Your task to perform on an android device: Clear the shopping cart on newegg. Add "macbook pro" to the cart on newegg, then select checkout. Image 0: 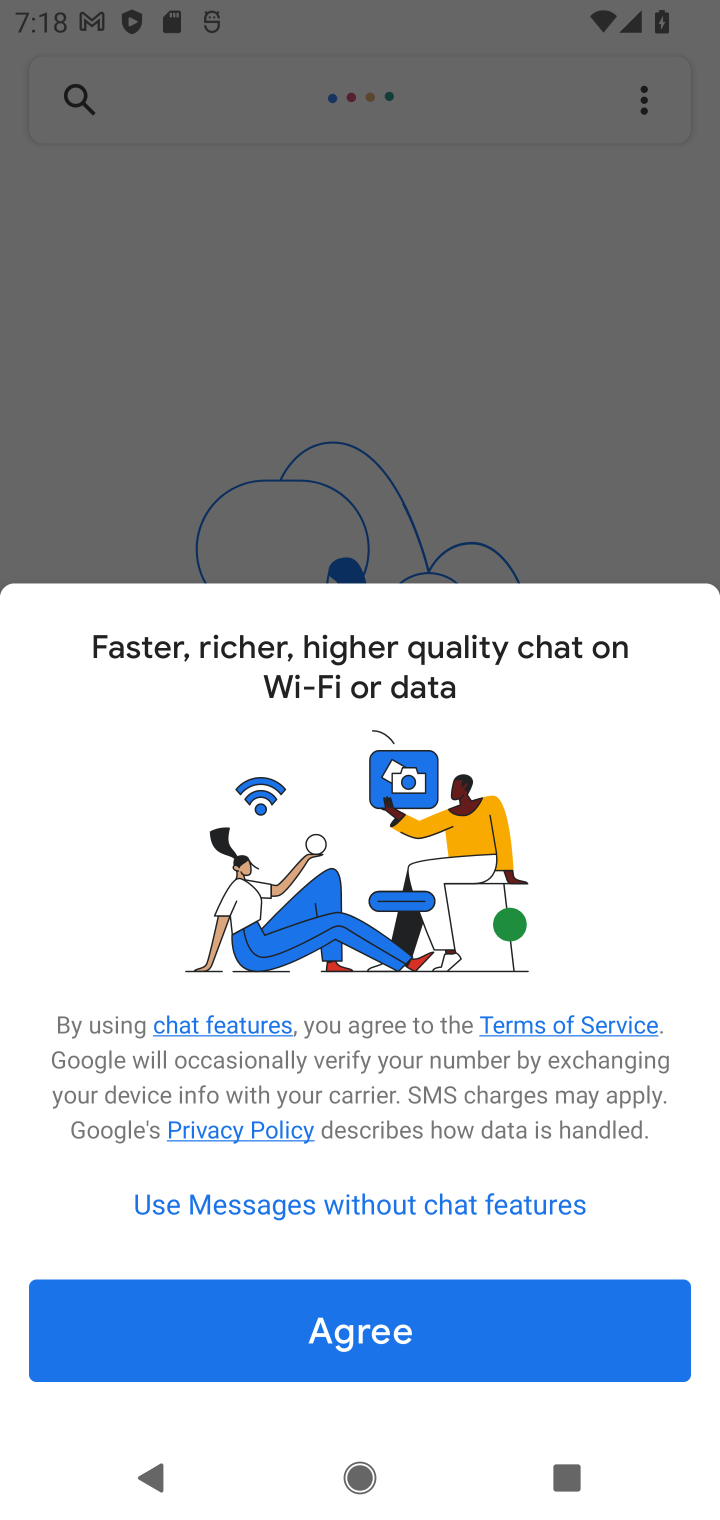
Step 0: press home button
Your task to perform on an android device: Clear the shopping cart on newegg. Add "macbook pro" to the cart on newegg, then select checkout. Image 1: 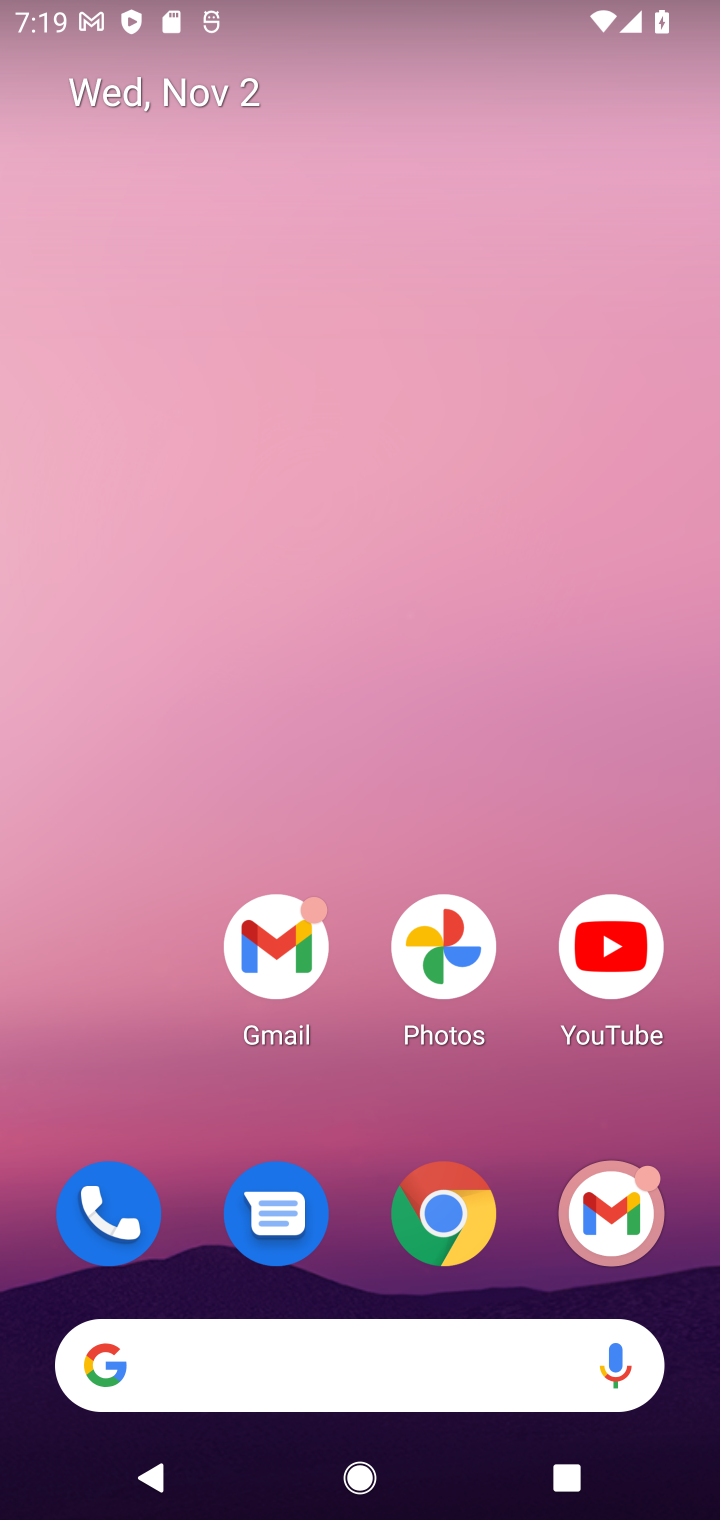
Step 1: click (438, 1213)
Your task to perform on an android device: Clear the shopping cart on newegg. Add "macbook pro" to the cart on newegg, then select checkout. Image 2: 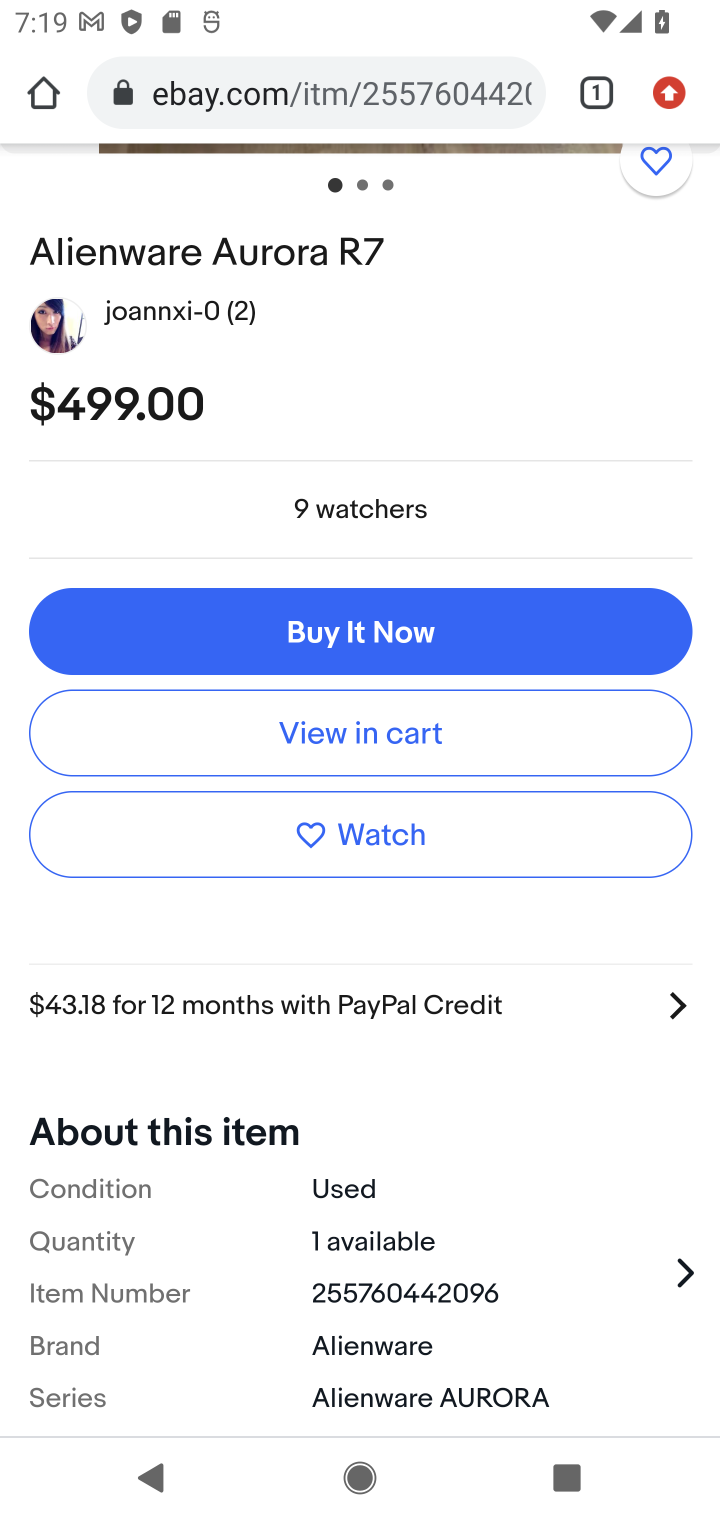
Step 2: click (340, 61)
Your task to perform on an android device: Clear the shopping cart on newegg. Add "macbook pro" to the cart on newegg, then select checkout. Image 3: 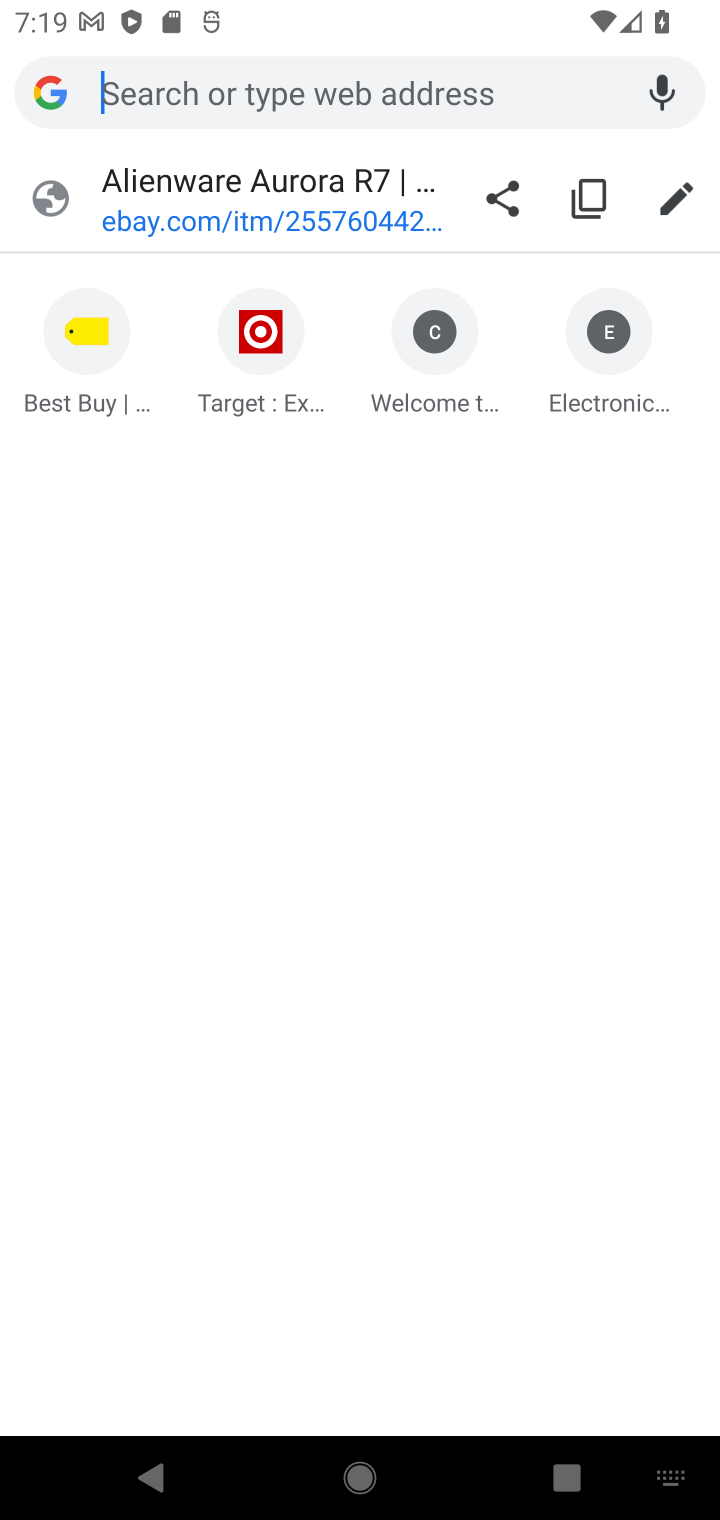
Step 3: type "newegg"
Your task to perform on an android device: Clear the shopping cart on newegg. Add "macbook pro" to the cart on newegg, then select checkout. Image 4: 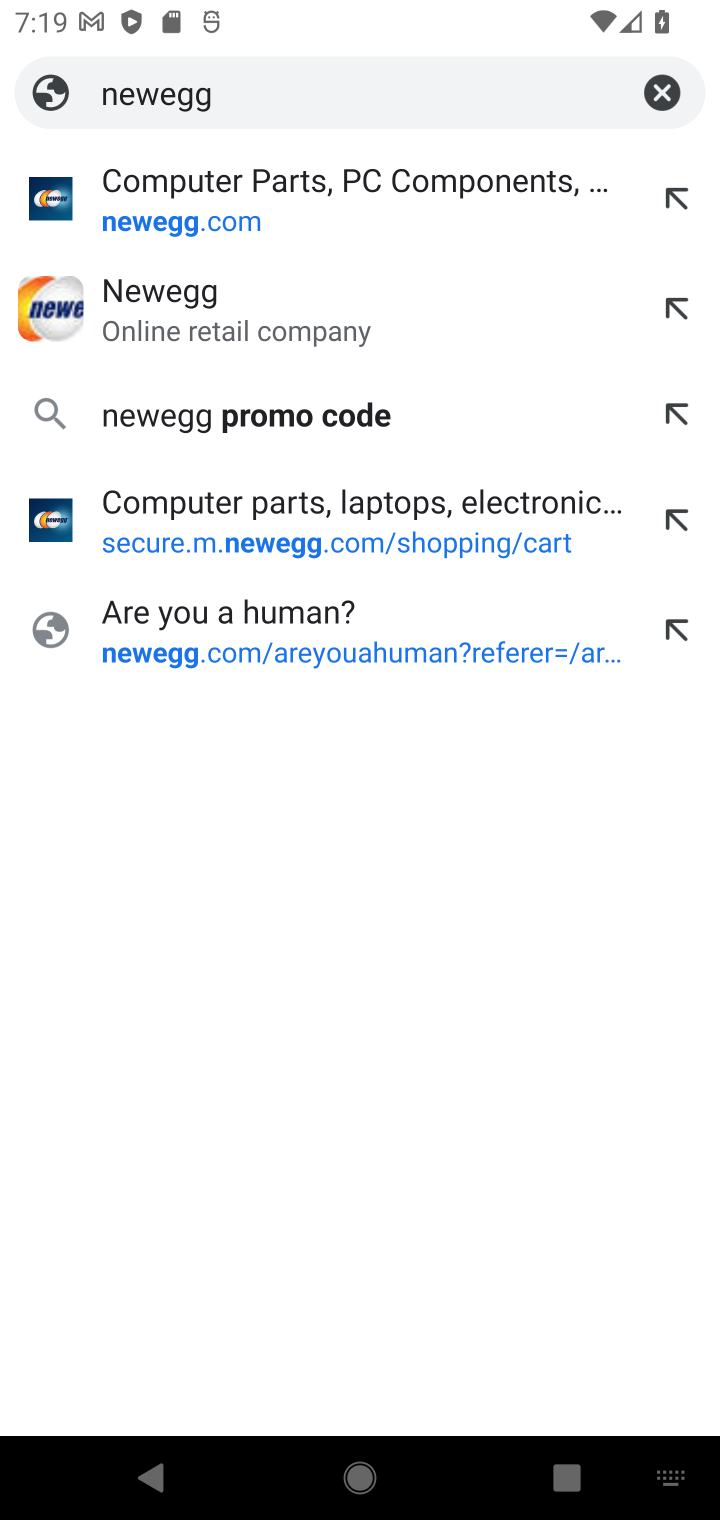
Step 4: click (157, 188)
Your task to perform on an android device: Clear the shopping cart on newegg. Add "macbook pro" to the cart on newegg, then select checkout. Image 5: 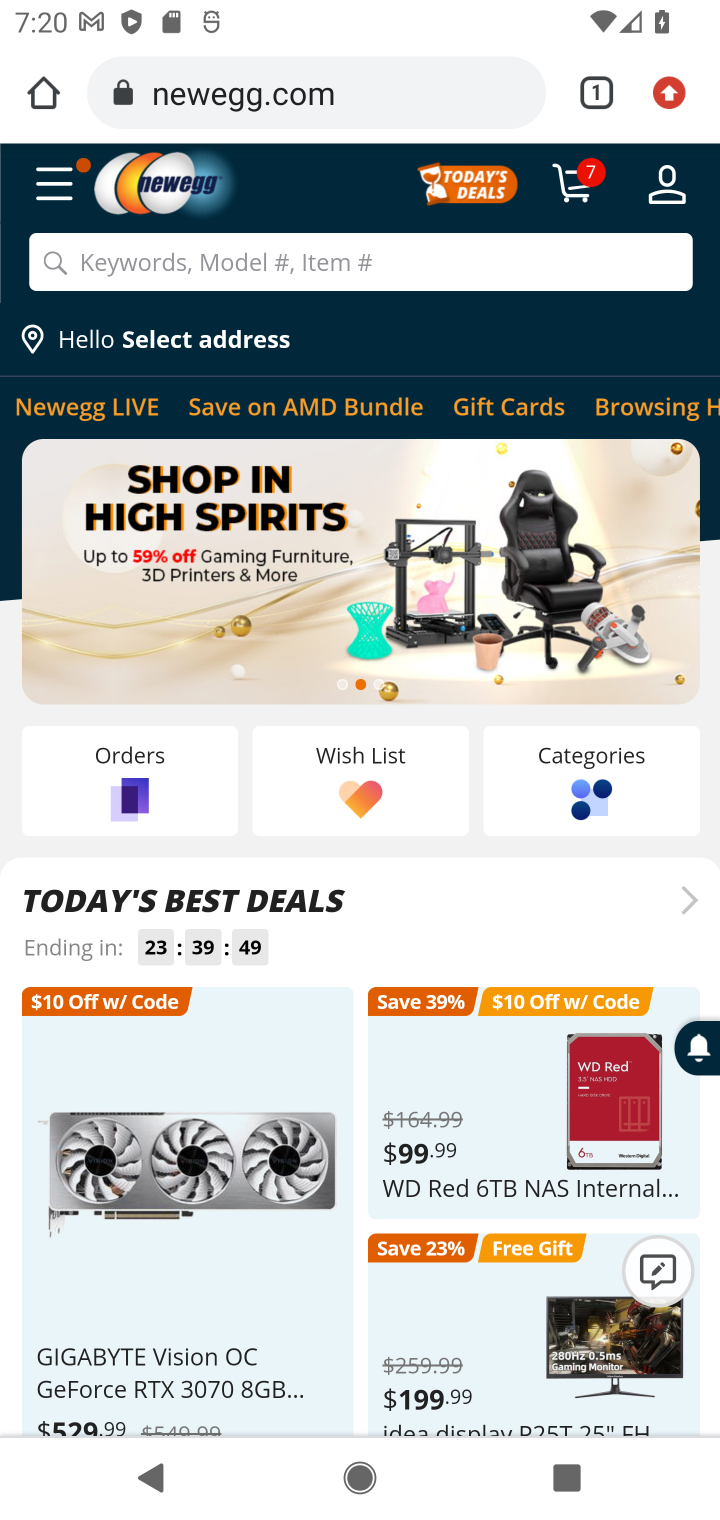
Step 5: click (579, 187)
Your task to perform on an android device: Clear the shopping cart on newegg. Add "macbook pro" to the cart on newegg, then select checkout. Image 6: 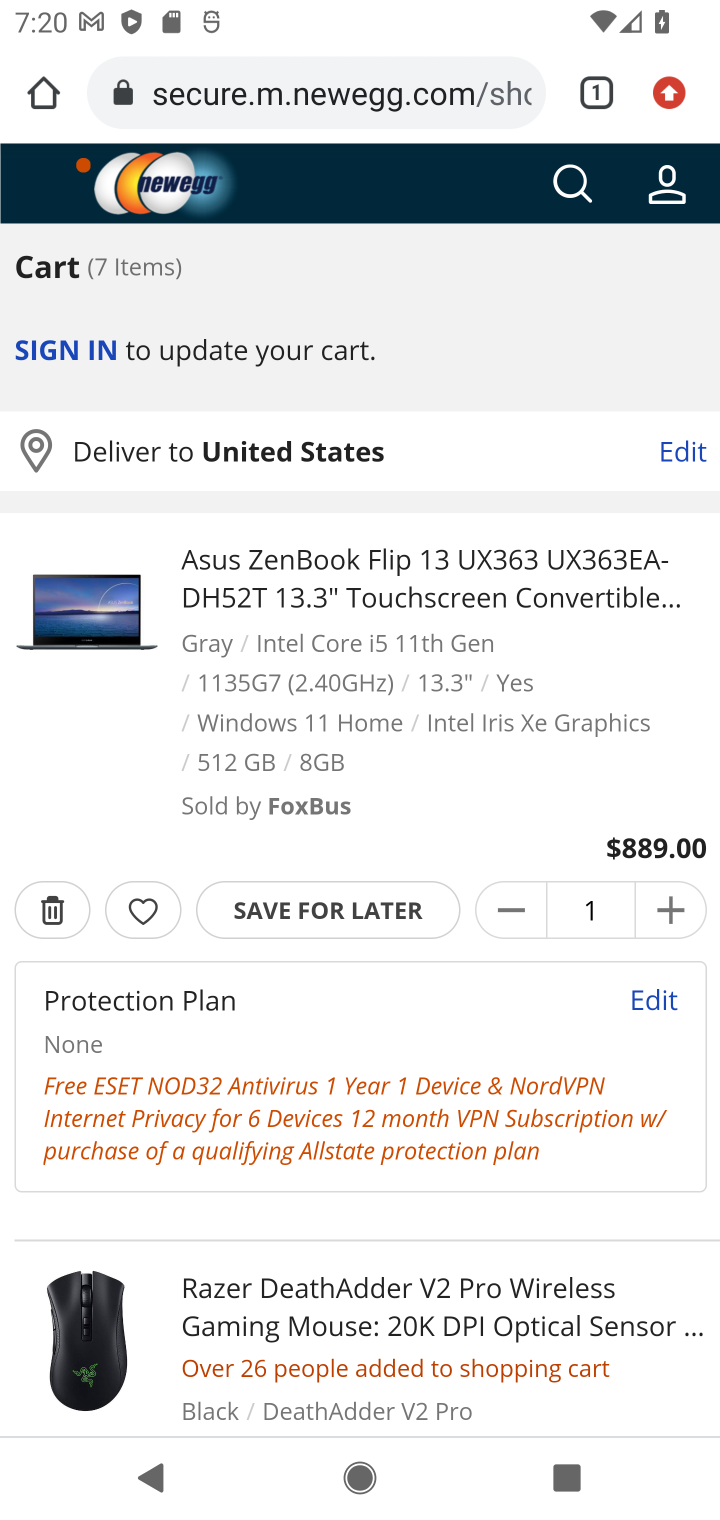
Step 6: click (47, 907)
Your task to perform on an android device: Clear the shopping cart on newegg. Add "macbook pro" to the cart on newegg, then select checkout. Image 7: 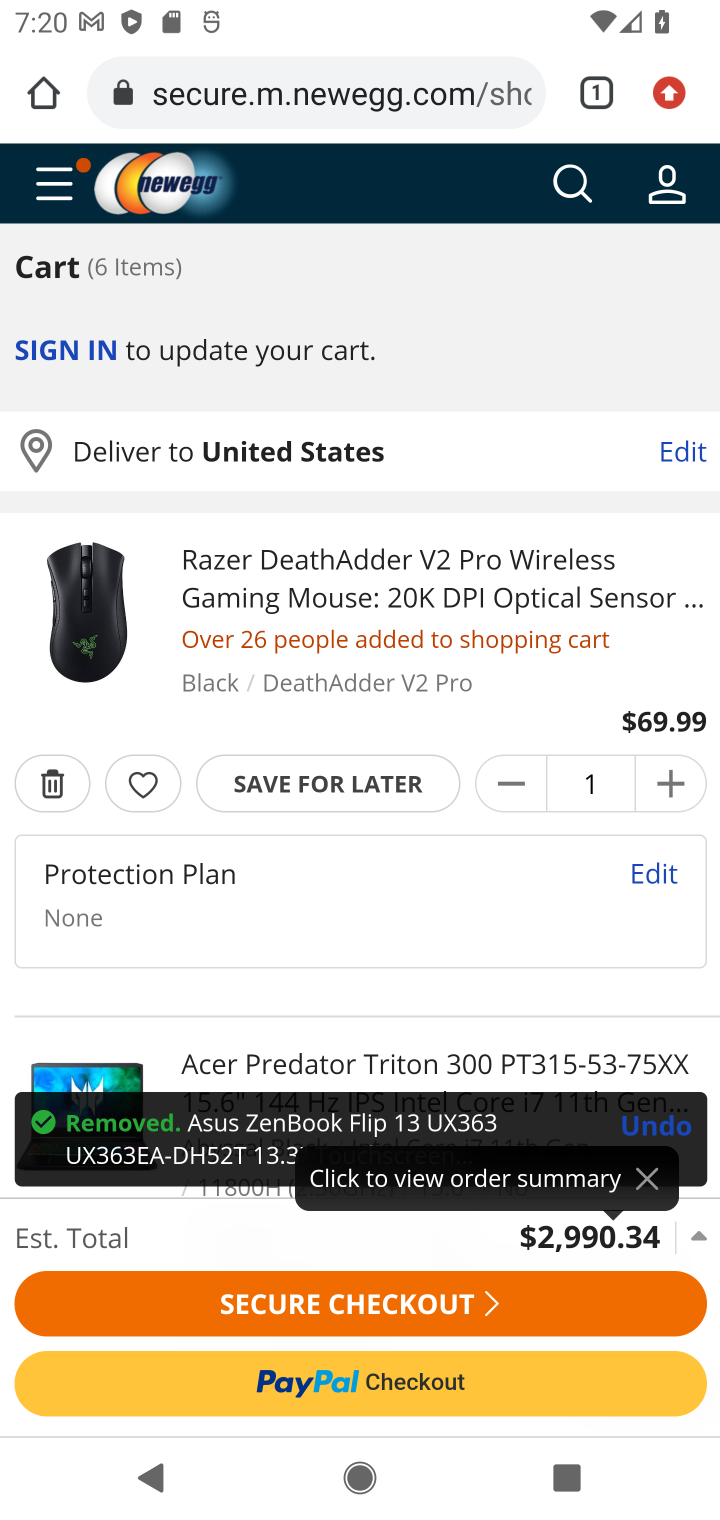
Step 7: click (51, 779)
Your task to perform on an android device: Clear the shopping cart on newegg. Add "macbook pro" to the cart on newegg, then select checkout. Image 8: 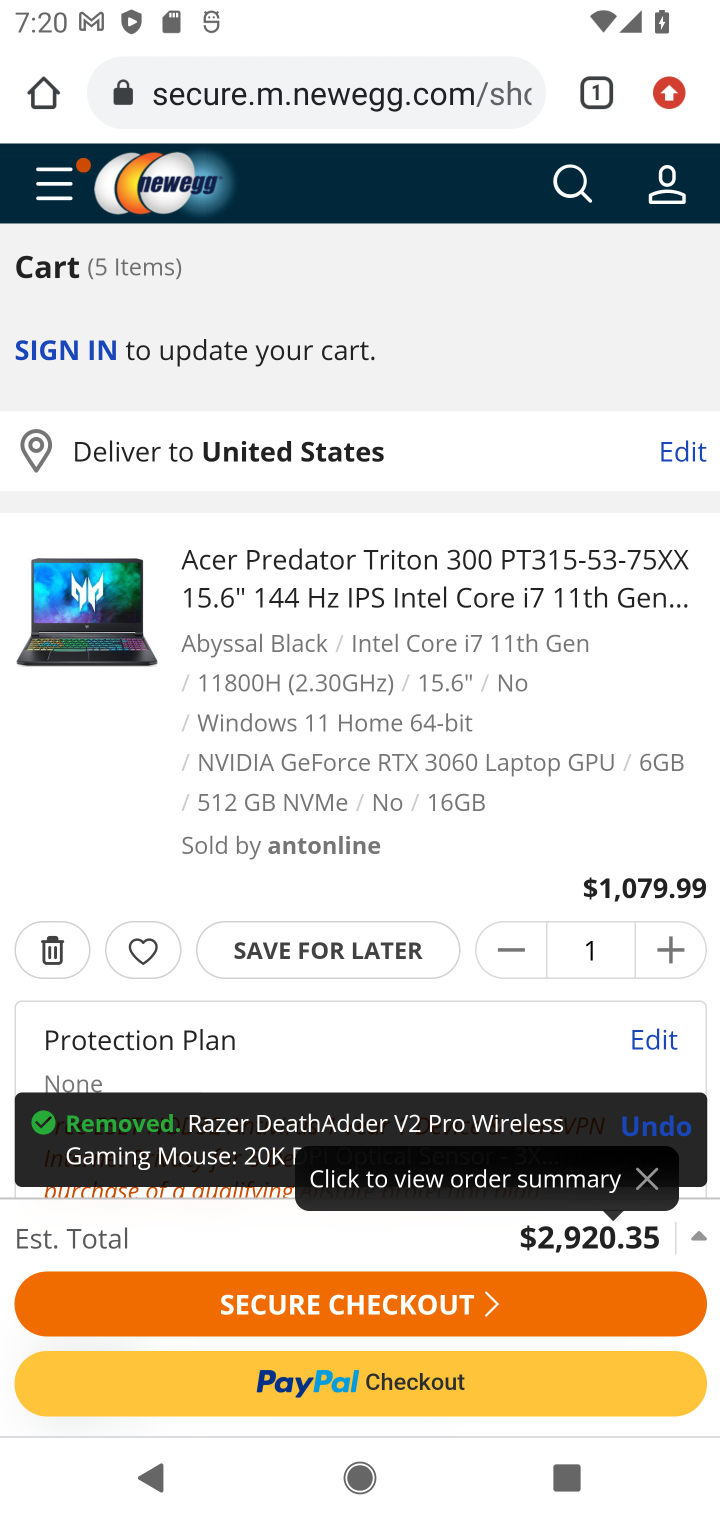
Step 8: click (50, 948)
Your task to perform on an android device: Clear the shopping cart on newegg. Add "macbook pro" to the cart on newegg, then select checkout. Image 9: 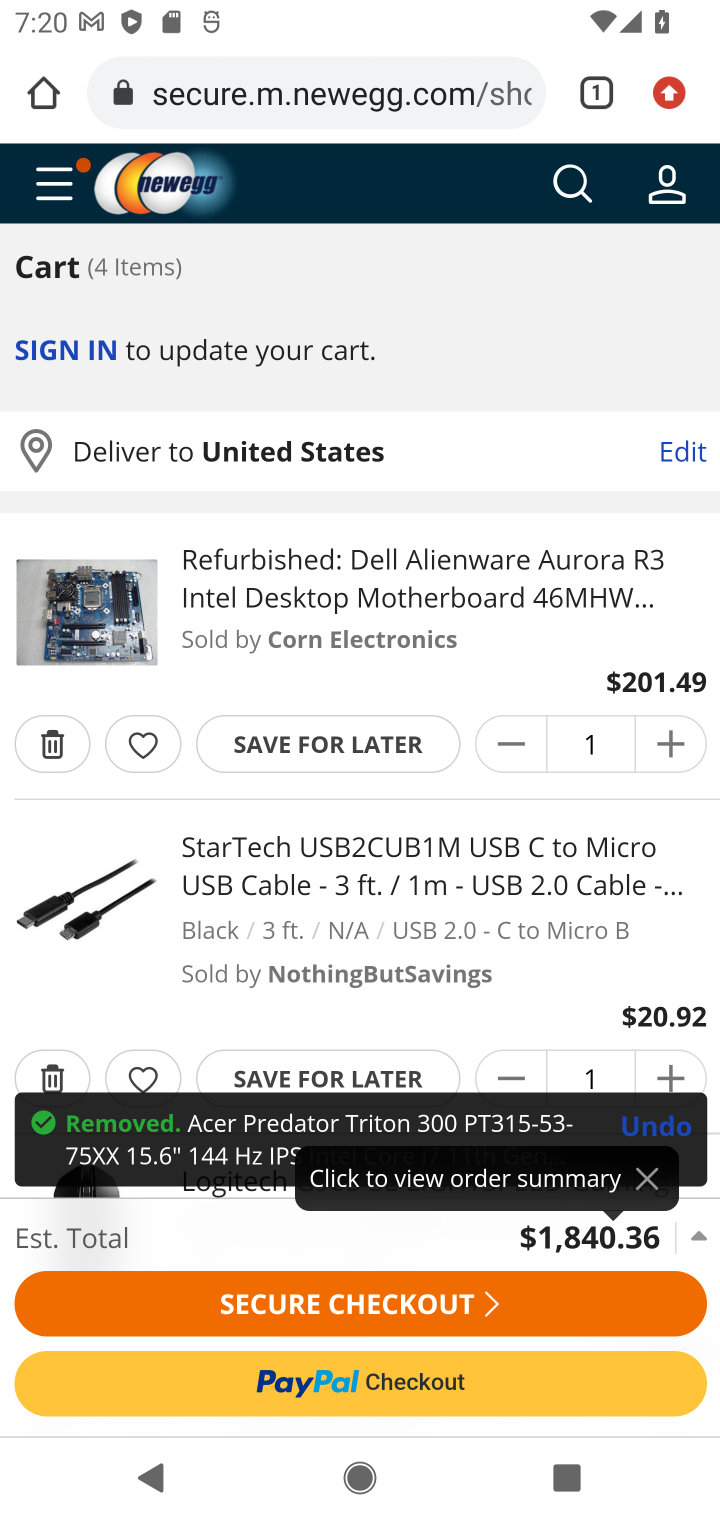
Step 9: click (42, 735)
Your task to perform on an android device: Clear the shopping cart on newegg. Add "macbook pro" to the cart on newegg, then select checkout. Image 10: 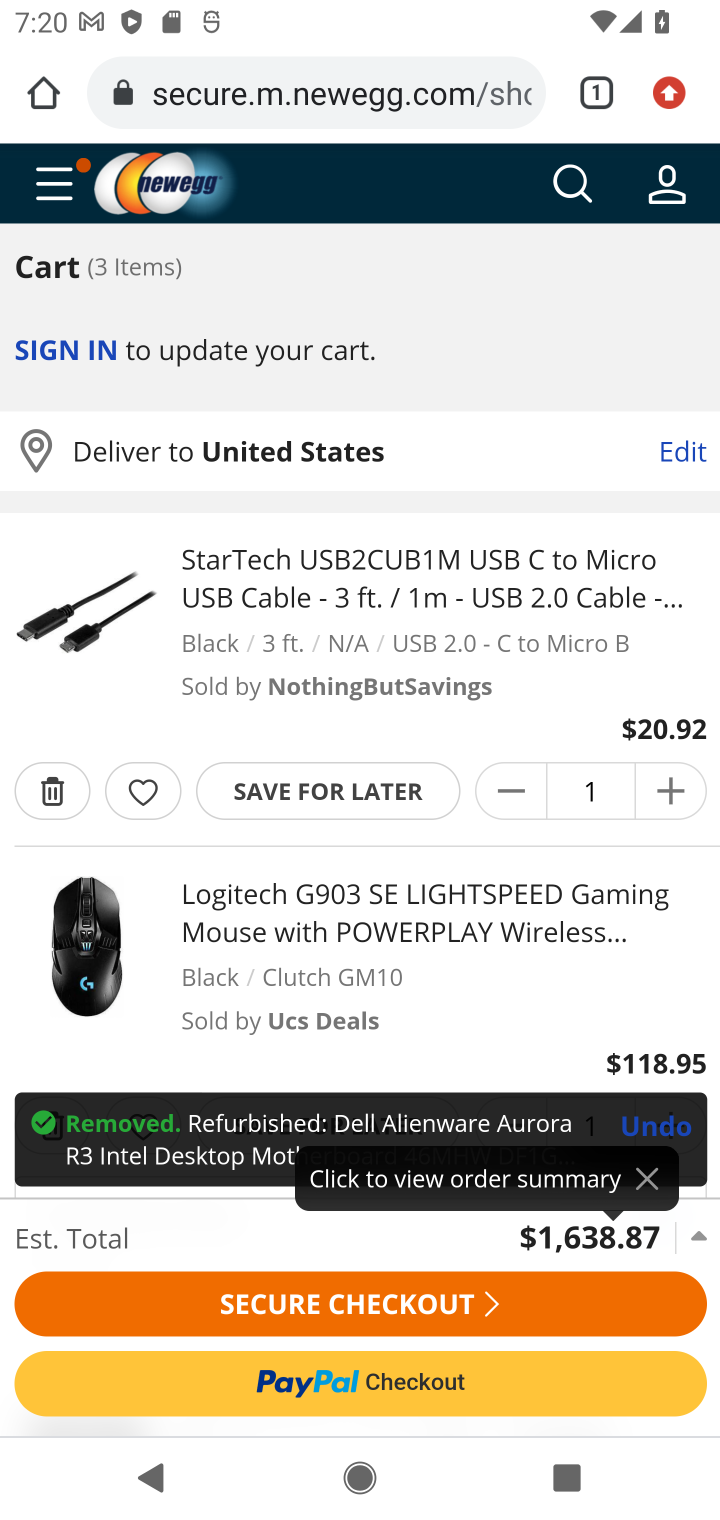
Step 10: click (53, 782)
Your task to perform on an android device: Clear the shopping cart on newegg. Add "macbook pro" to the cart on newegg, then select checkout. Image 11: 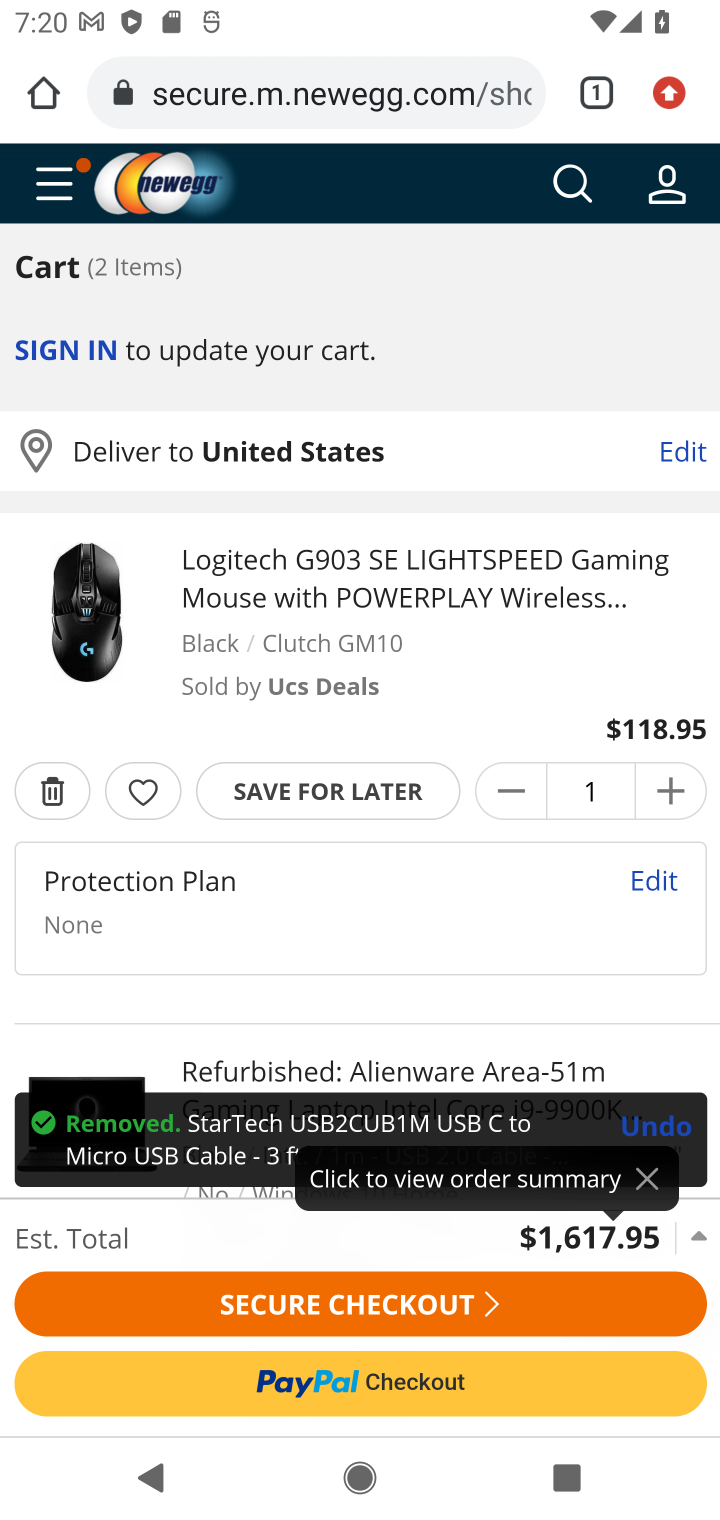
Step 11: click (52, 789)
Your task to perform on an android device: Clear the shopping cart on newegg. Add "macbook pro" to the cart on newegg, then select checkout. Image 12: 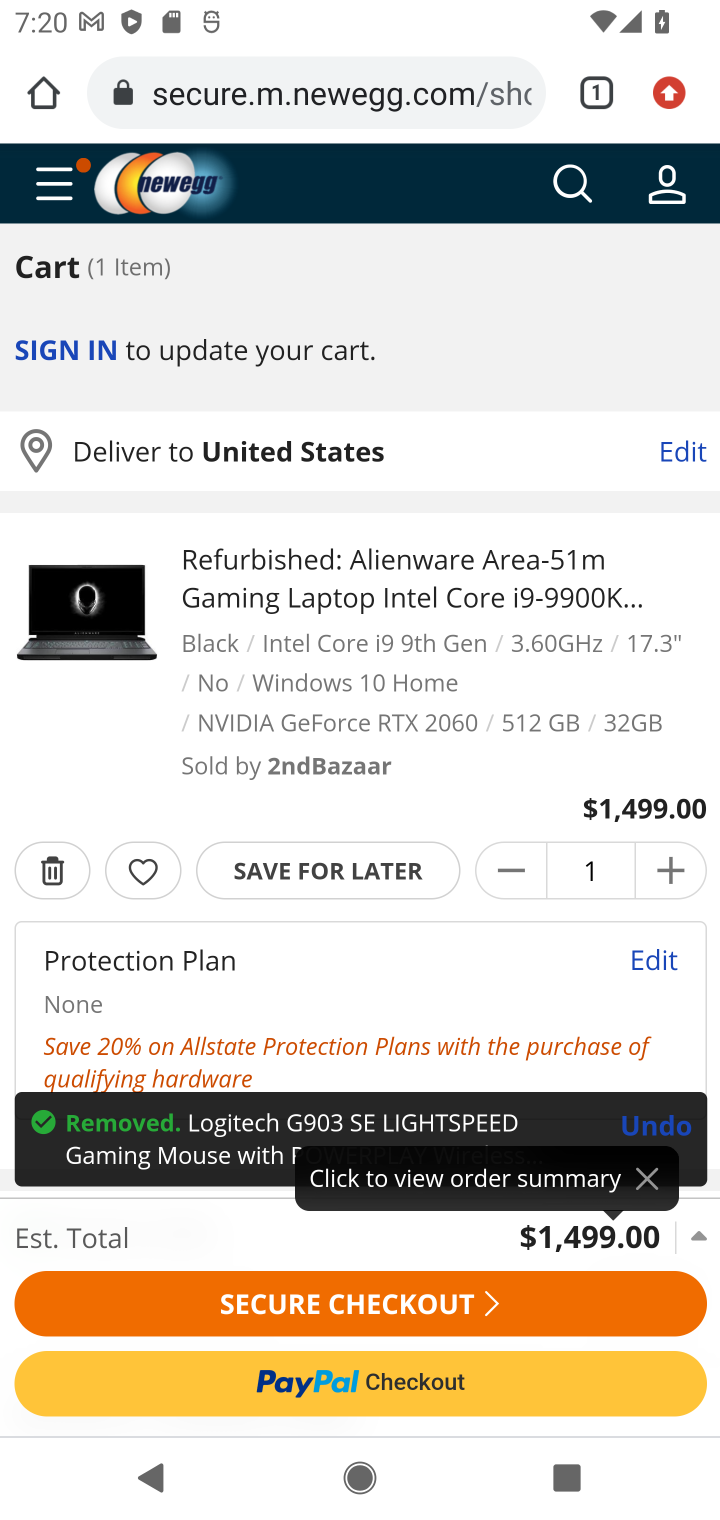
Step 12: click (53, 860)
Your task to perform on an android device: Clear the shopping cart on newegg. Add "macbook pro" to the cart on newegg, then select checkout. Image 13: 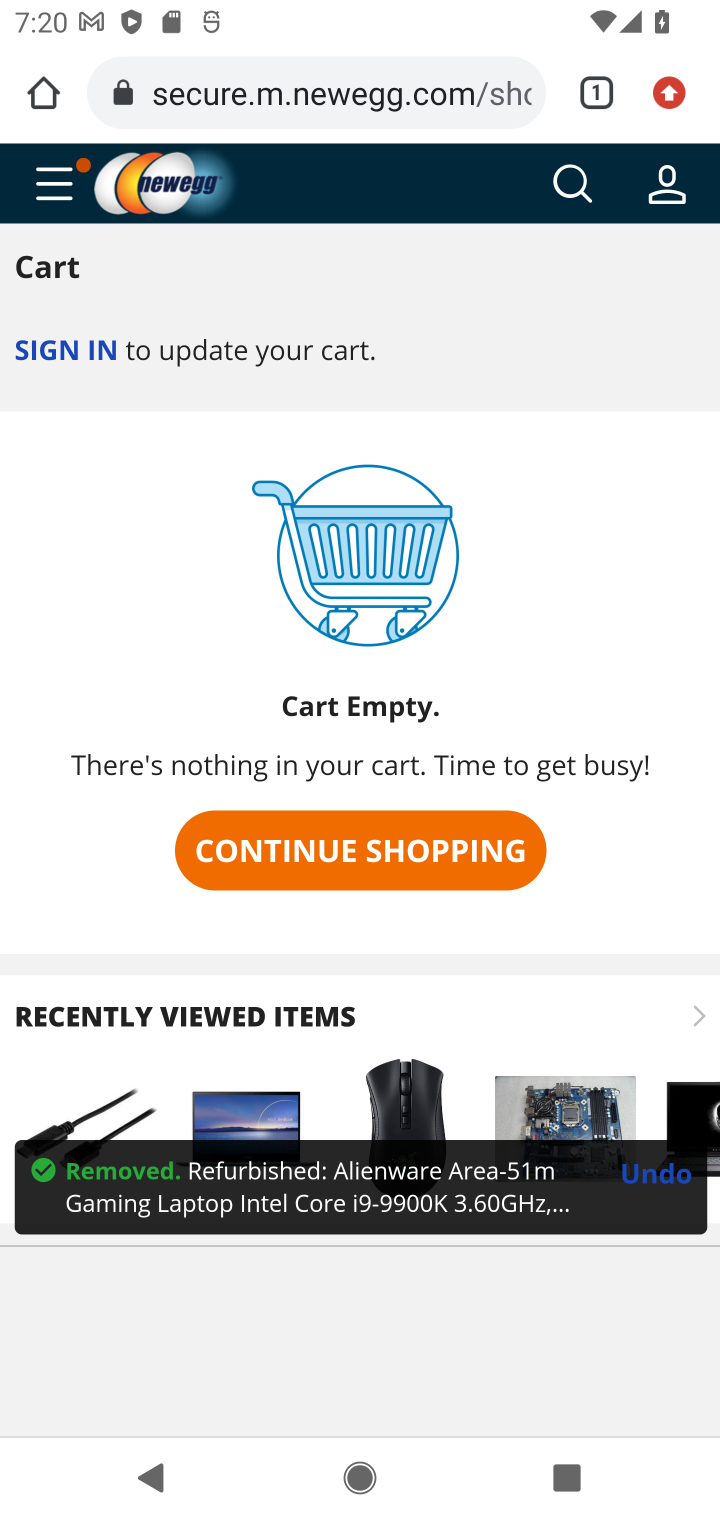
Step 13: click (356, 851)
Your task to perform on an android device: Clear the shopping cart on newegg. Add "macbook pro" to the cart on newegg, then select checkout. Image 14: 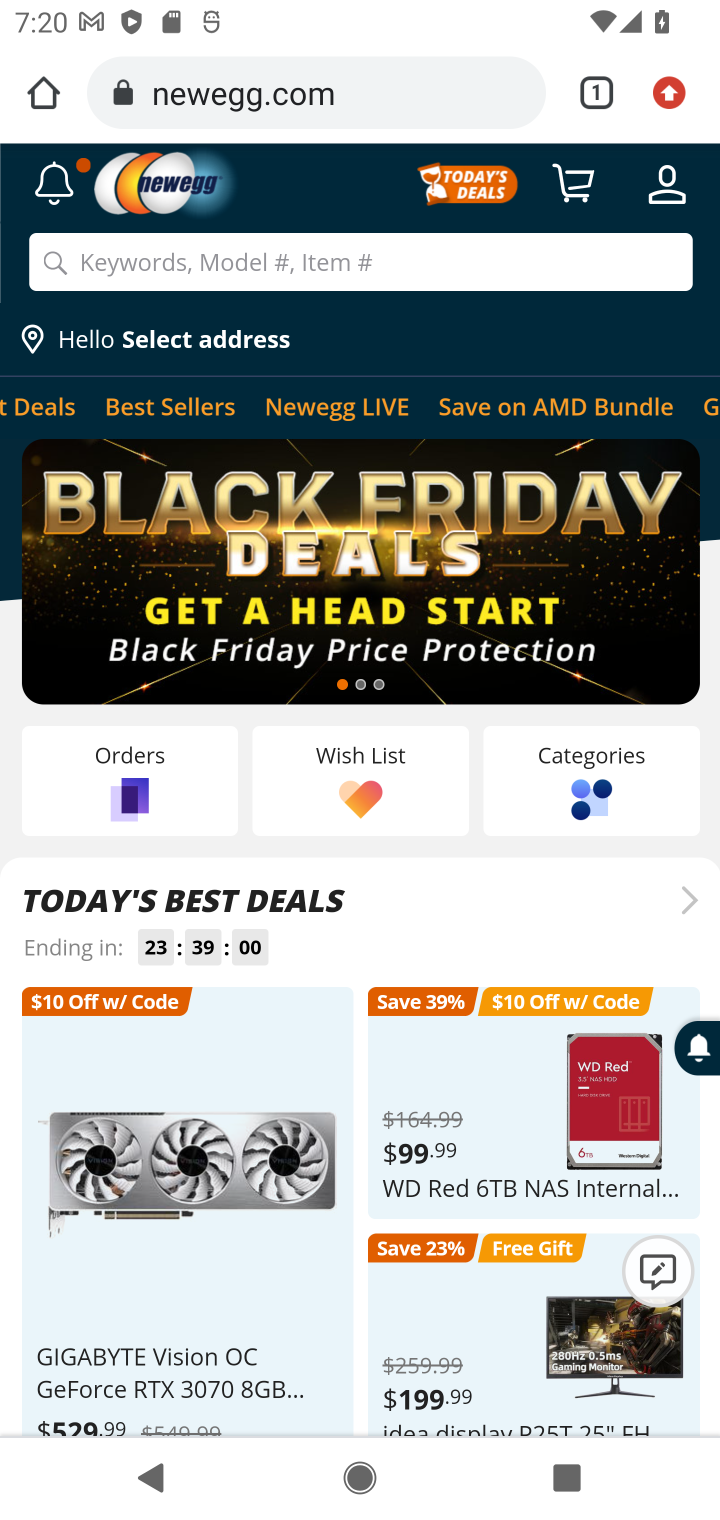
Step 14: click (234, 261)
Your task to perform on an android device: Clear the shopping cart on newegg. Add "macbook pro" to the cart on newegg, then select checkout. Image 15: 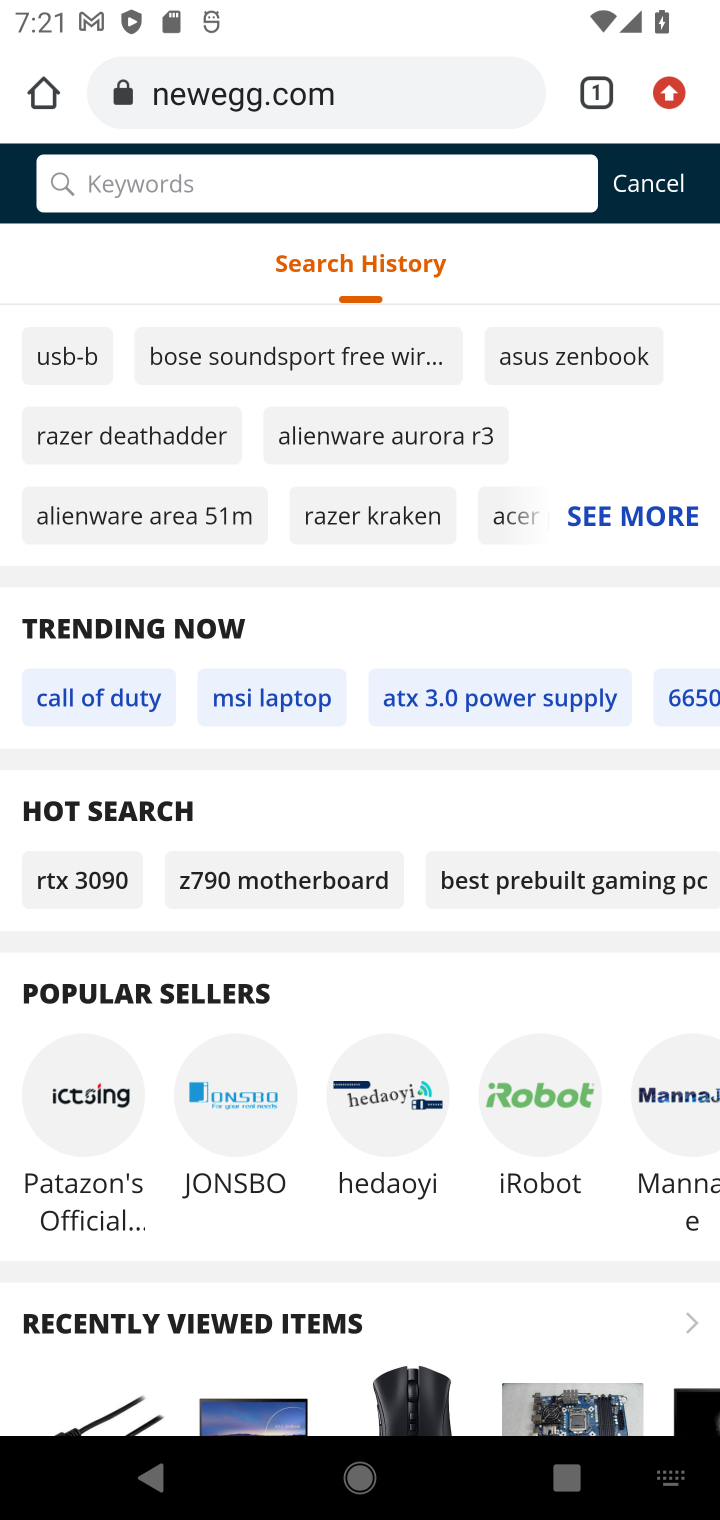
Step 15: type "macbook pro"
Your task to perform on an android device: Clear the shopping cart on newegg. Add "macbook pro" to the cart on newegg, then select checkout. Image 16: 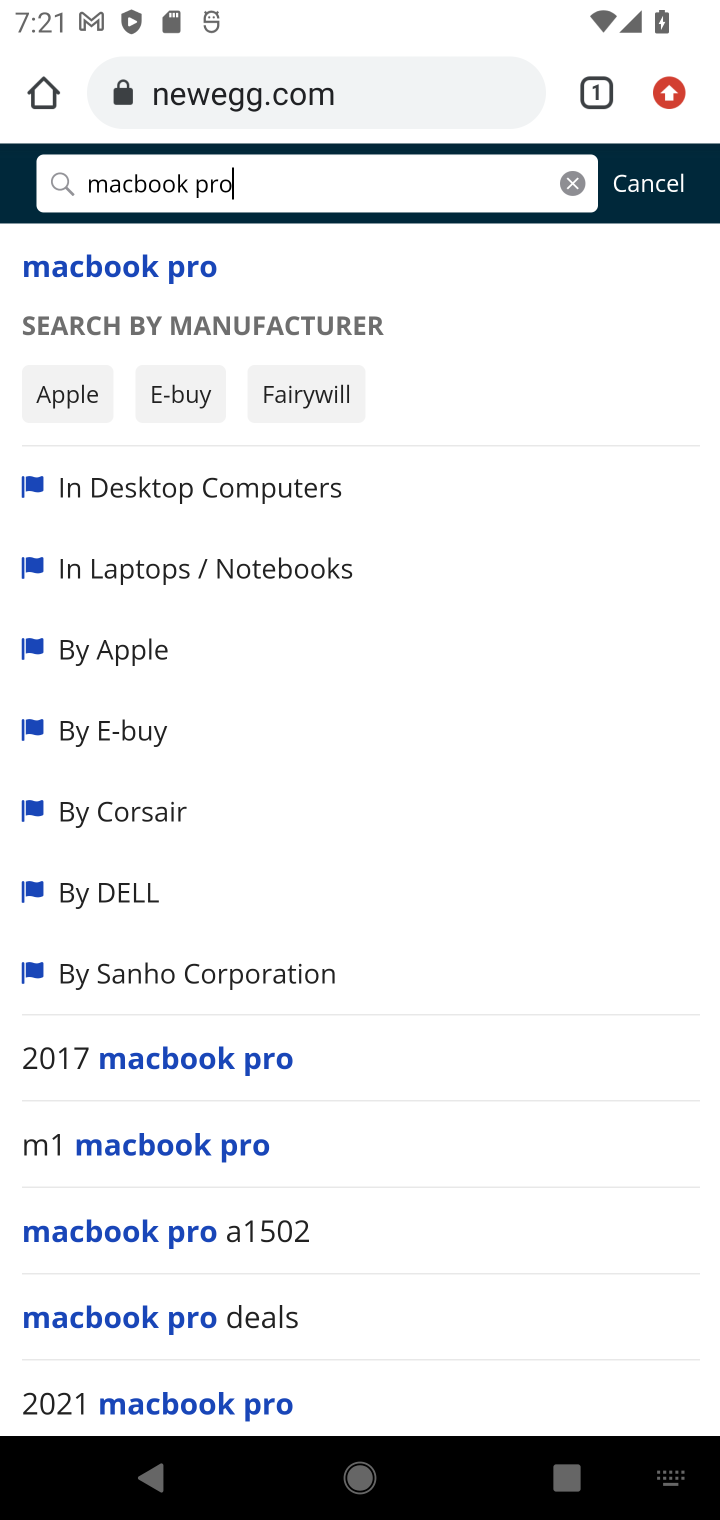
Step 16: click (120, 274)
Your task to perform on an android device: Clear the shopping cart on newegg. Add "macbook pro" to the cart on newegg, then select checkout. Image 17: 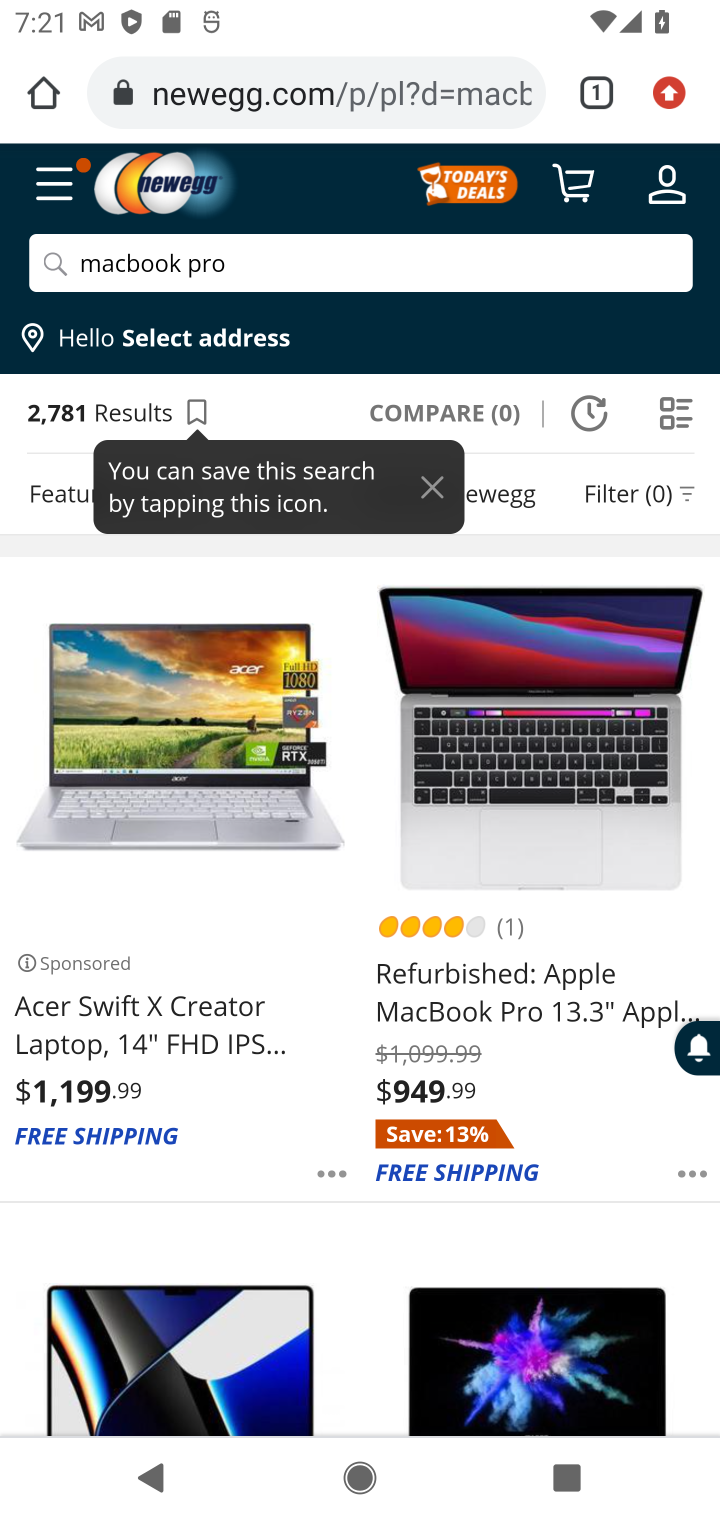
Step 17: drag from (341, 1229) to (332, 757)
Your task to perform on an android device: Clear the shopping cart on newegg. Add "macbook pro" to the cart on newegg, then select checkout. Image 18: 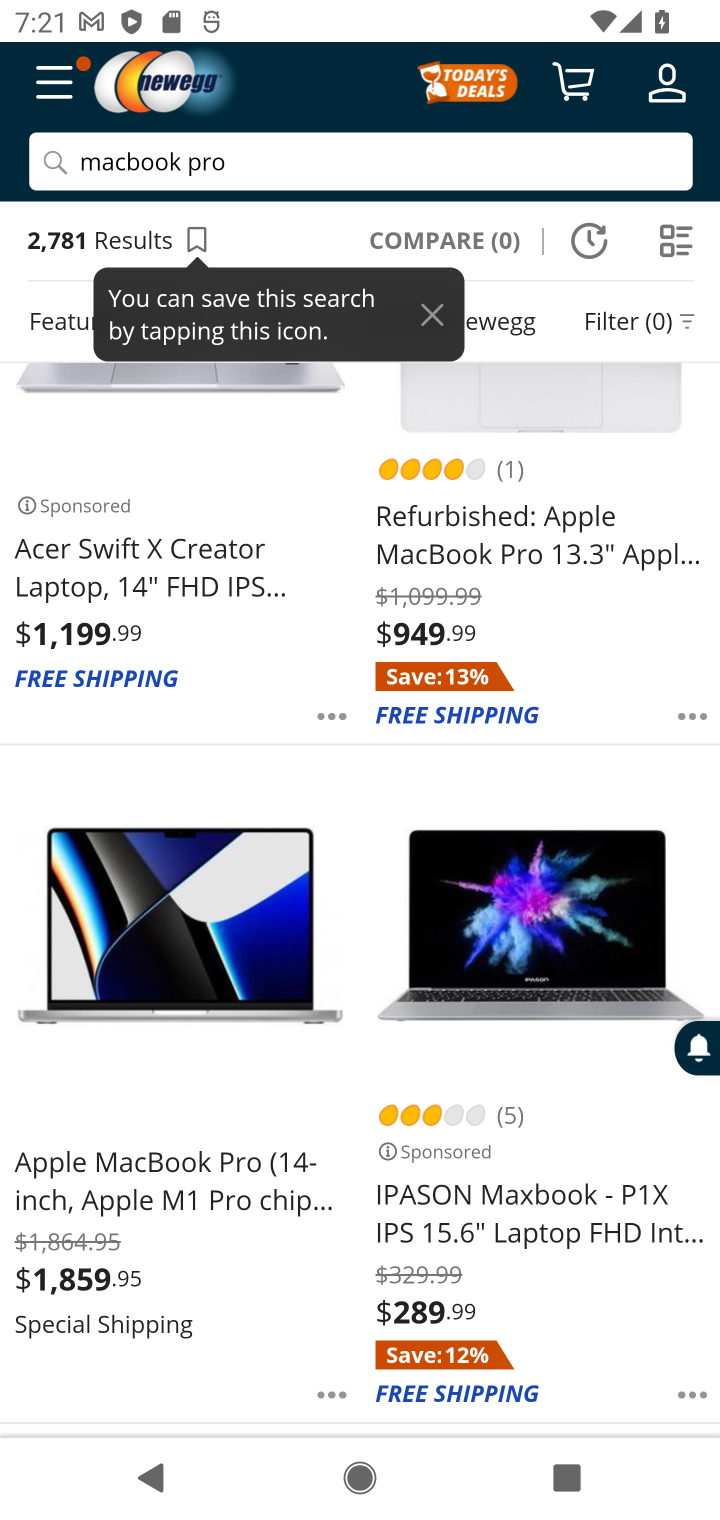
Step 18: click (54, 1149)
Your task to perform on an android device: Clear the shopping cart on newegg. Add "macbook pro" to the cart on newegg, then select checkout. Image 19: 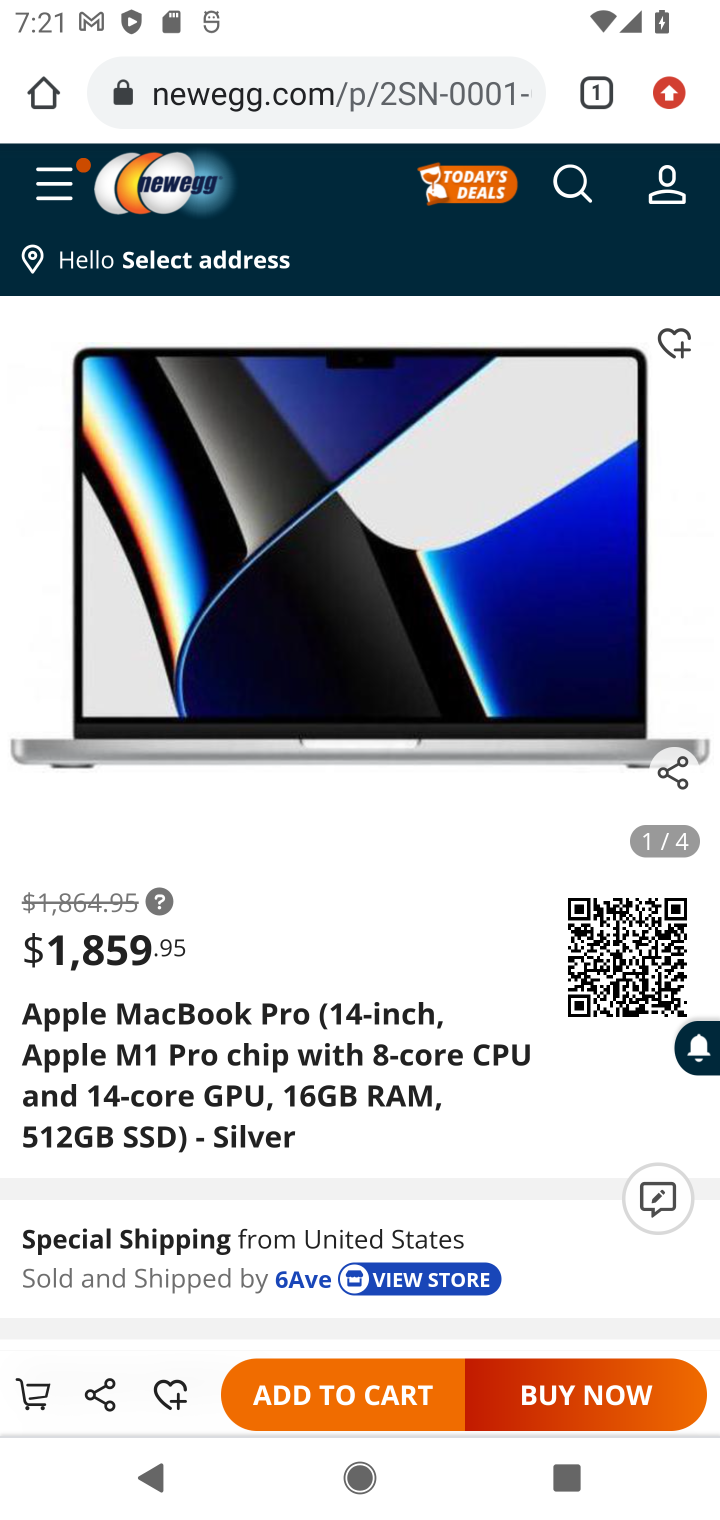
Step 19: click (313, 1391)
Your task to perform on an android device: Clear the shopping cart on newegg. Add "macbook pro" to the cart on newegg, then select checkout. Image 20: 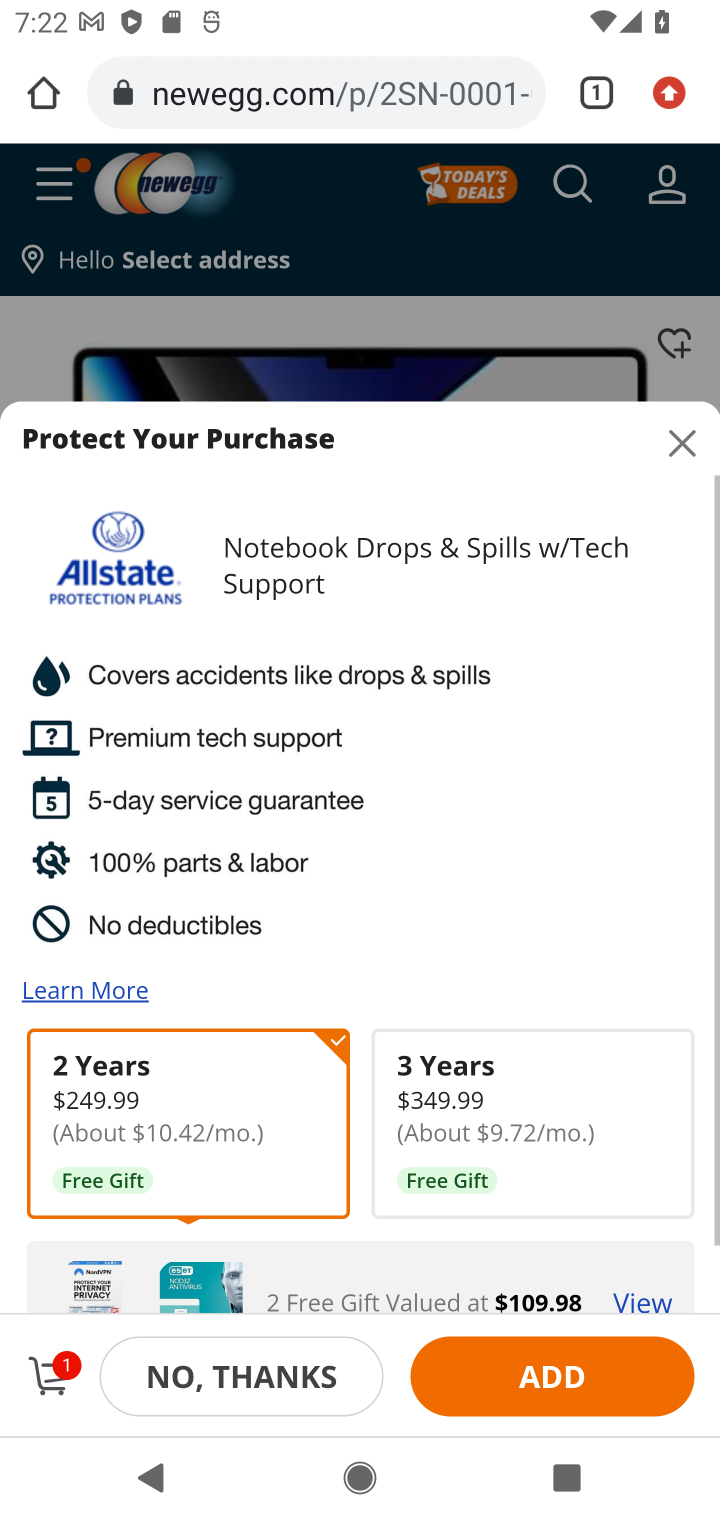
Step 20: click (191, 1373)
Your task to perform on an android device: Clear the shopping cart on newegg. Add "macbook pro" to the cart on newegg, then select checkout. Image 21: 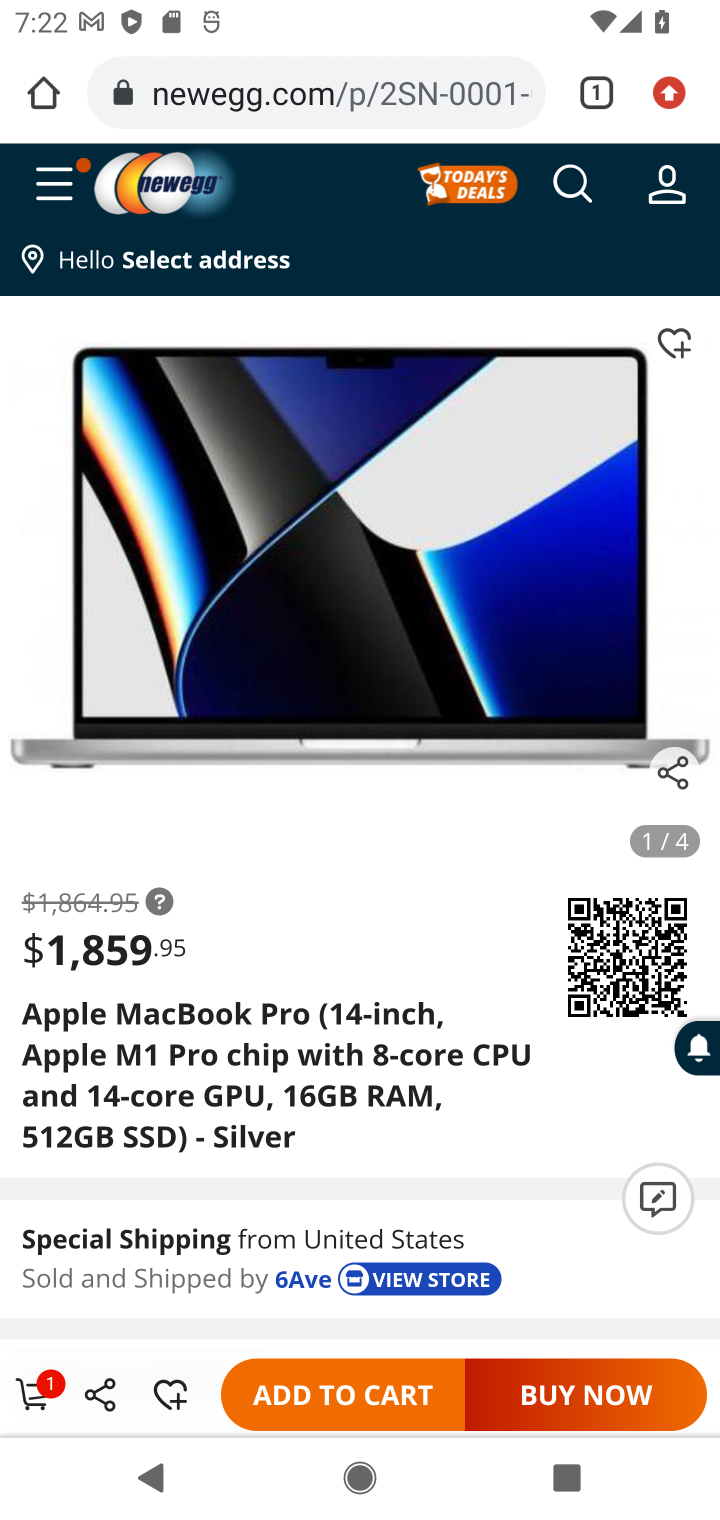
Step 21: click (38, 1383)
Your task to perform on an android device: Clear the shopping cart on newegg. Add "macbook pro" to the cart on newegg, then select checkout. Image 22: 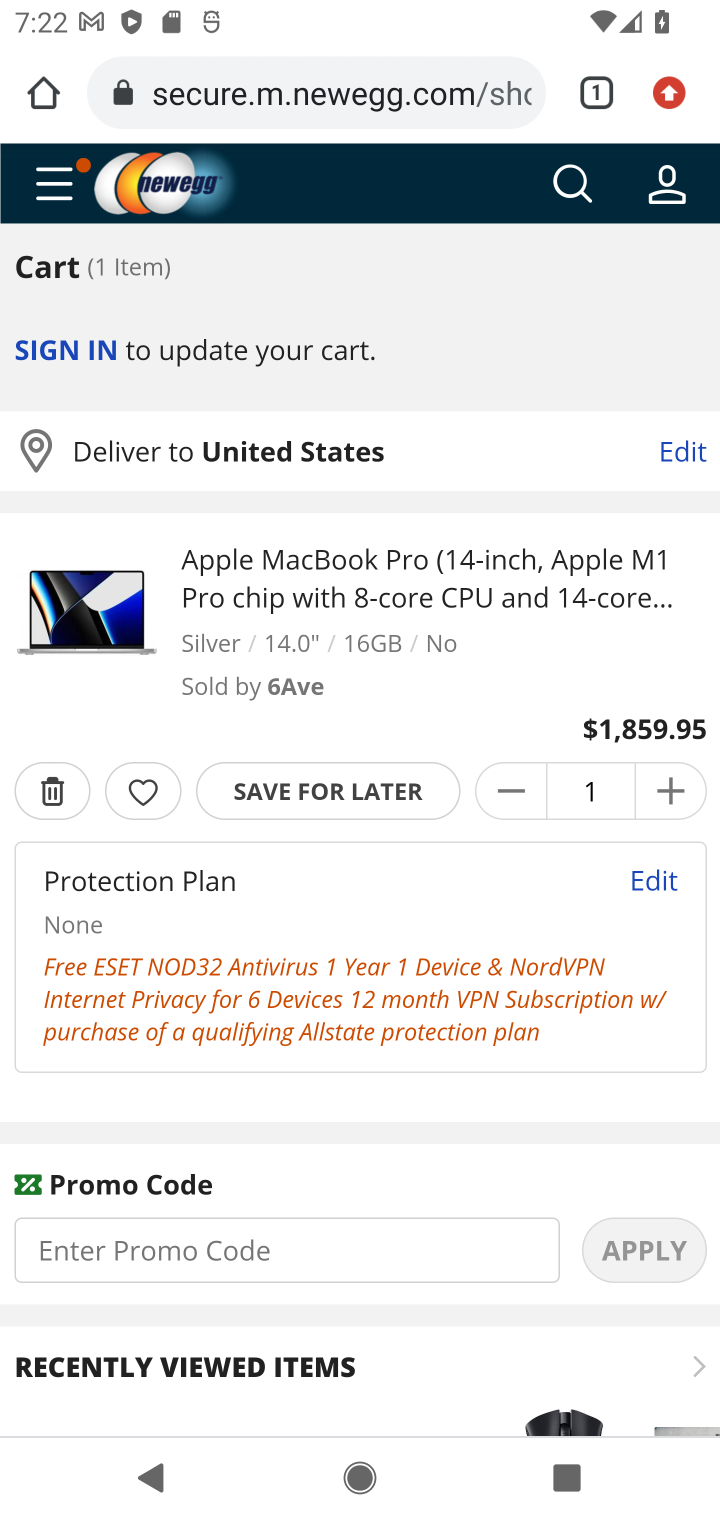
Step 22: click (350, 1295)
Your task to perform on an android device: Clear the shopping cart on newegg. Add "macbook pro" to the cart on newegg, then select checkout. Image 23: 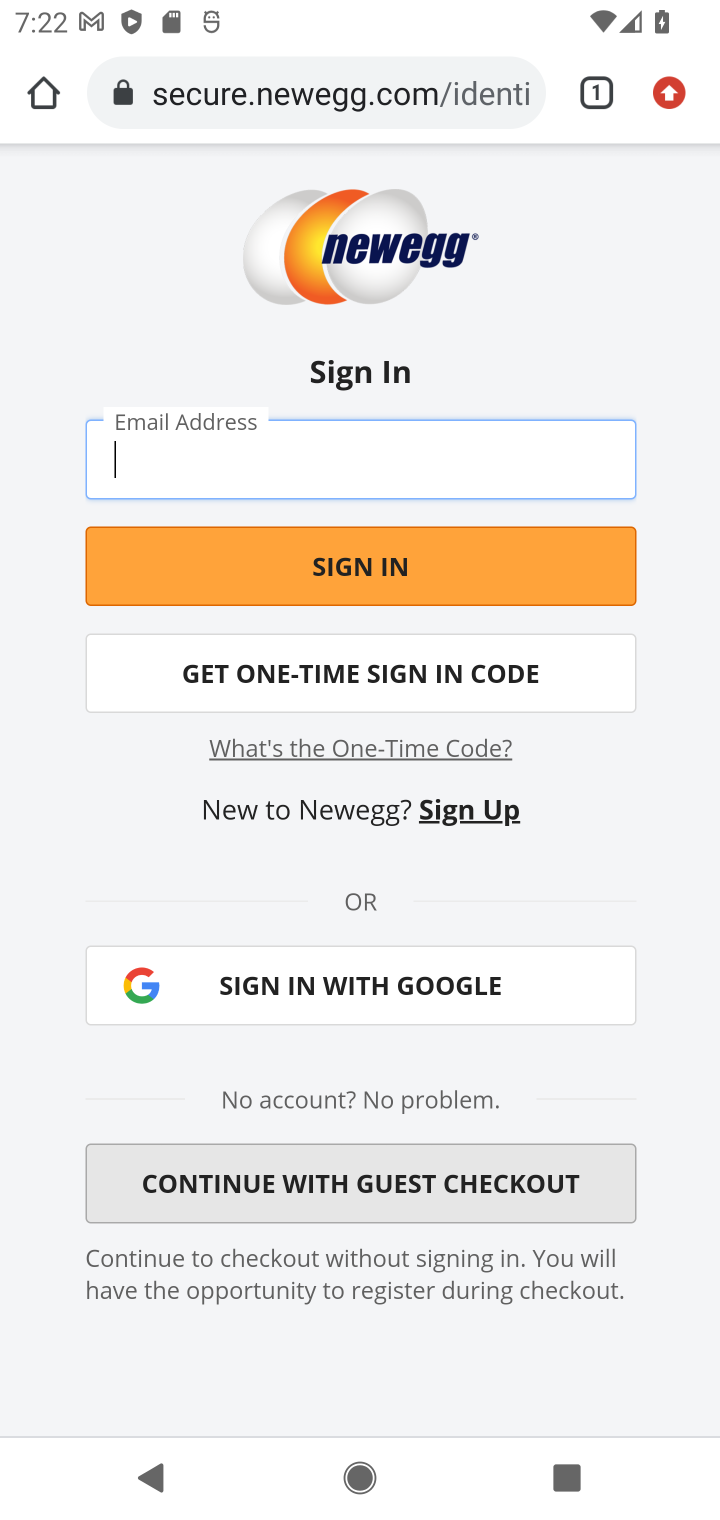
Step 23: task complete